Your task to perform on an android device: Open sound settings Image 0: 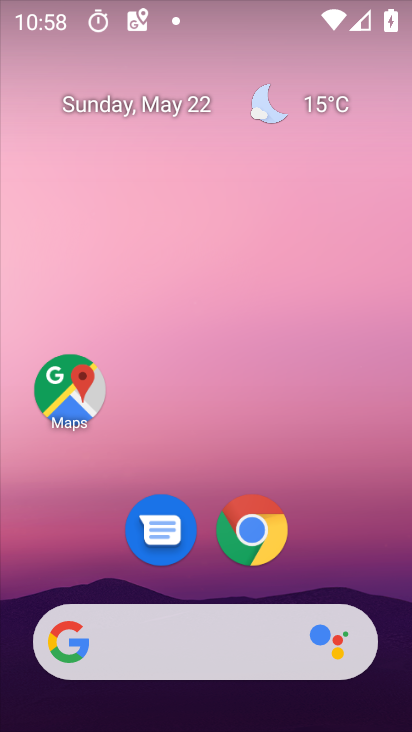
Step 0: drag from (390, 664) to (363, 259)
Your task to perform on an android device: Open sound settings Image 1: 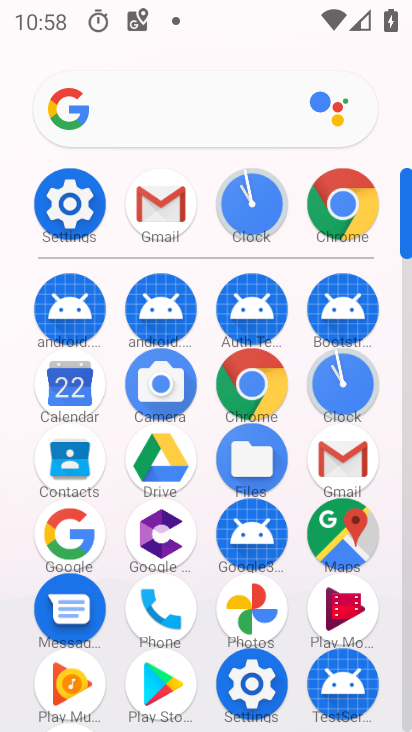
Step 1: click (84, 201)
Your task to perform on an android device: Open sound settings Image 2: 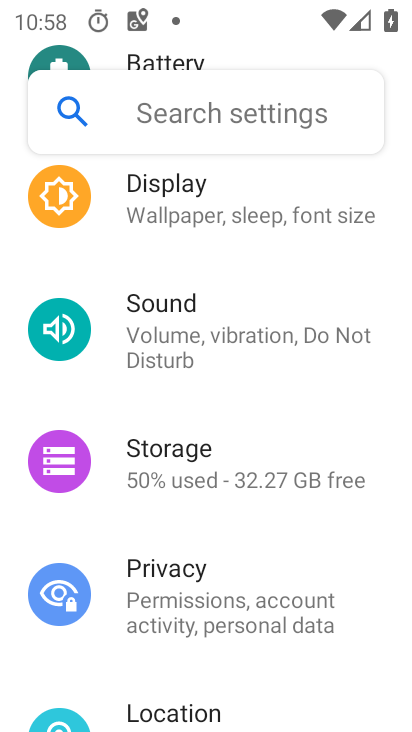
Step 2: drag from (330, 649) to (275, 386)
Your task to perform on an android device: Open sound settings Image 3: 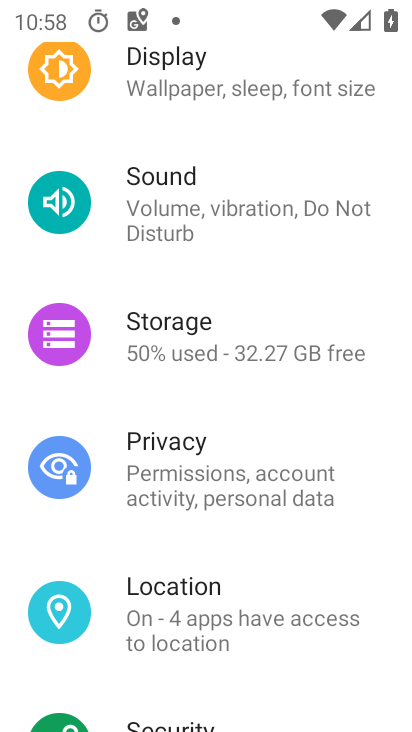
Step 3: click (161, 203)
Your task to perform on an android device: Open sound settings Image 4: 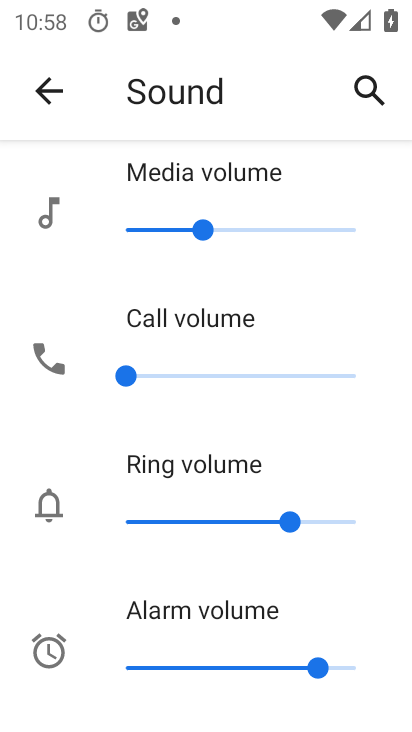
Step 4: task complete